Your task to perform on an android device: clear all cookies in the chrome app Image 0: 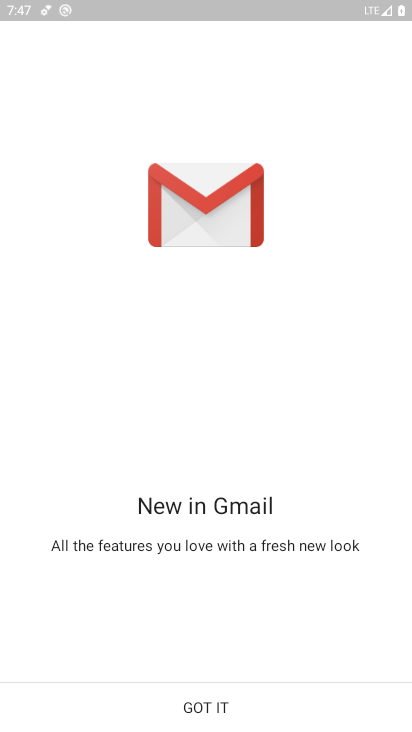
Step 0: click (214, 707)
Your task to perform on an android device: clear all cookies in the chrome app Image 1: 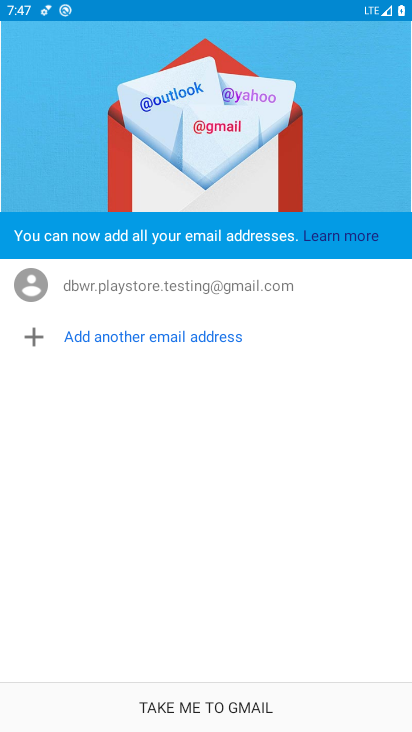
Step 1: press home button
Your task to perform on an android device: clear all cookies in the chrome app Image 2: 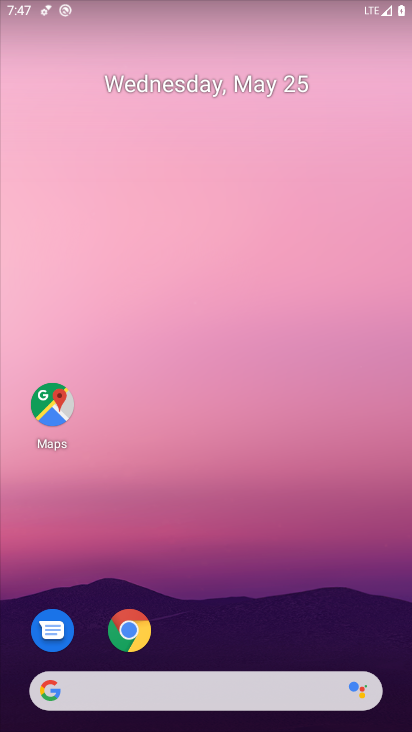
Step 2: click (135, 630)
Your task to perform on an android device: clear all cookies in the chrome app Image 3: 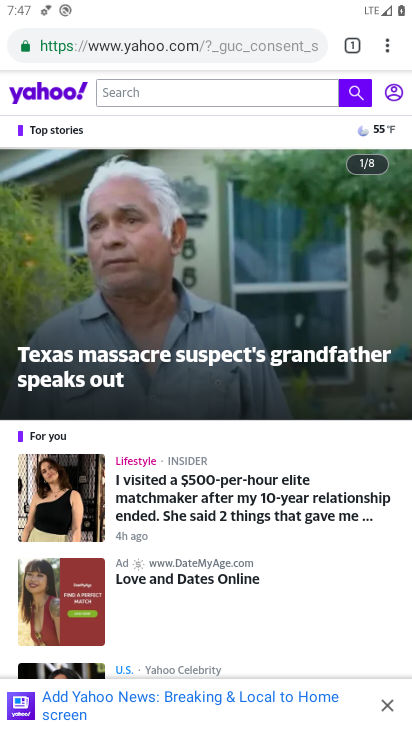
Step 3: click (389, 43)
Your task to perform on an android device: clear all cookies in the chrome app Image 4: 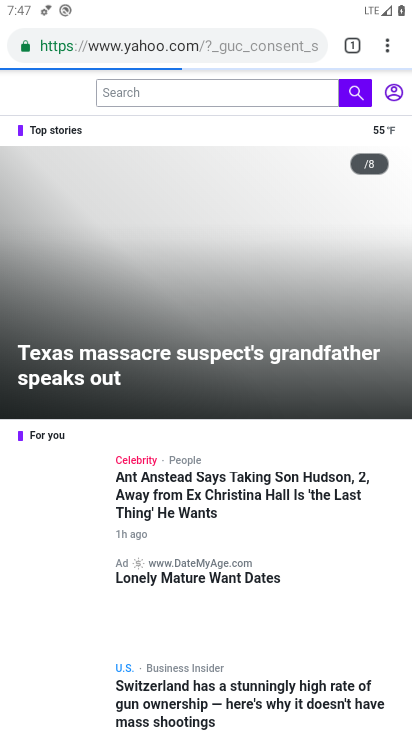
Step 4: click (350, 48)
Your task to perform on an android device: clear all cookies in the chrome app Image 5: 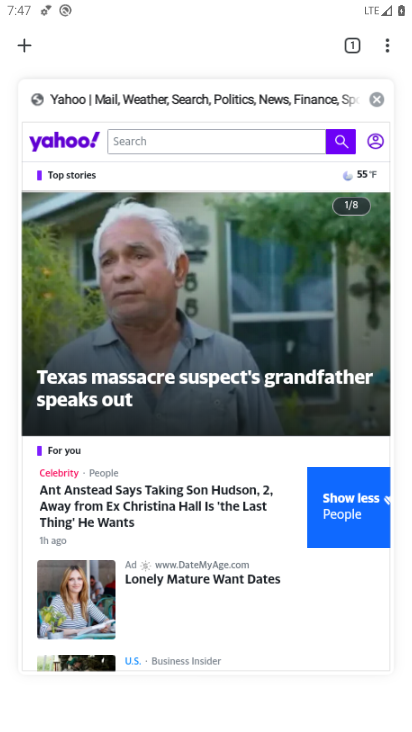
Step 5: click (372, 103)
Your task to perform on an android device: clear all cookies in the chrome app Image 6: 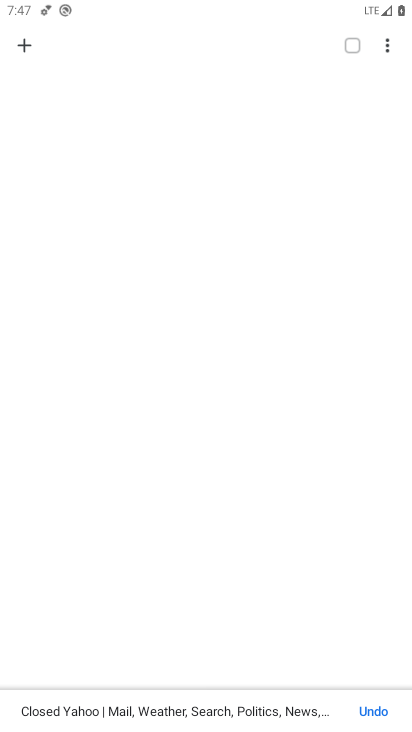
Step 6: click (388, 44)
Your task to perform on an android device: clear all cookies in the chrome app Image 7: 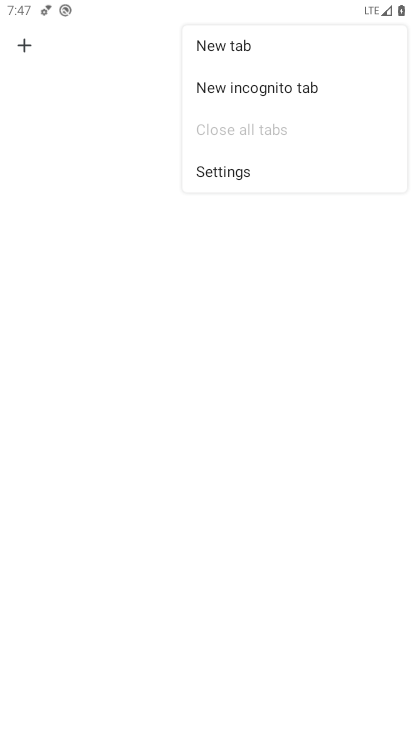
Step 7: click (239, 169)
Your task to perform on an android device: clear all cookies in the chrome app Image 8: 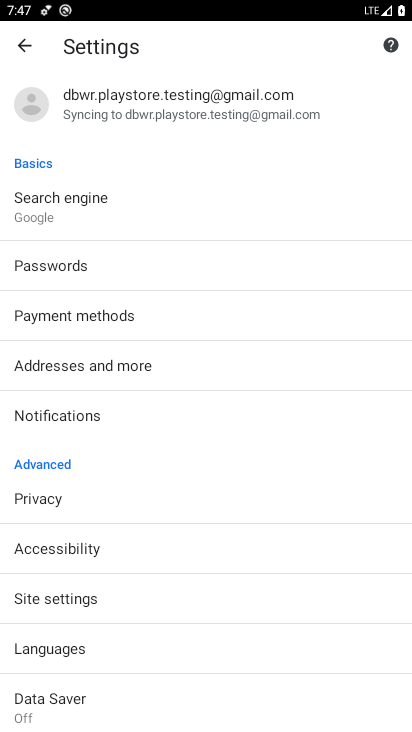
Step 8: click (41, 501)
Your task to perform on an android device: clear all cookies in the chrome app Image 9: 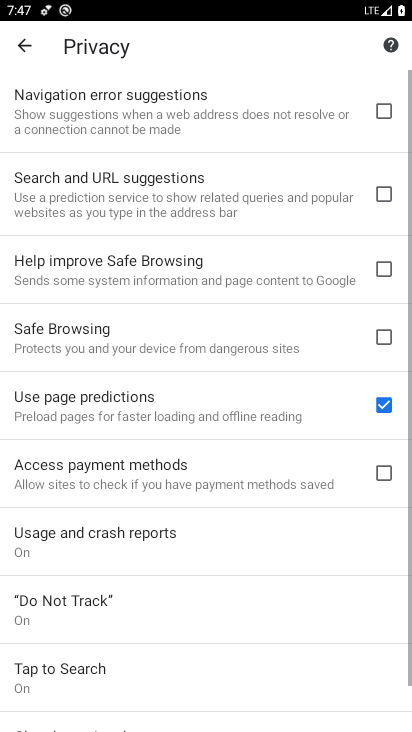
Step 9: click (83, 267)
Your task to perform on an android device: clear all cookies in the chrome app Image 10: 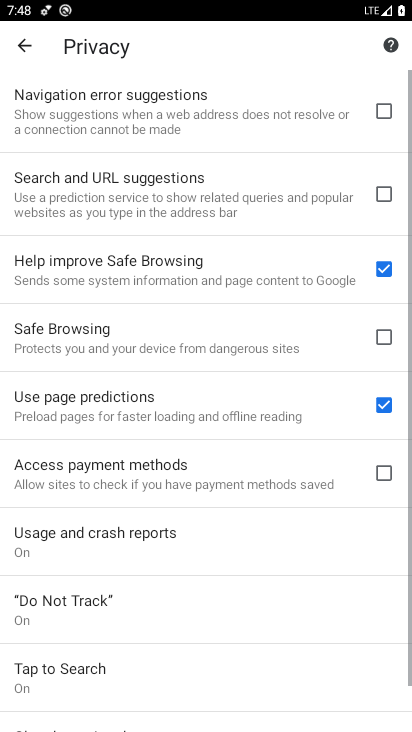
Step 10: drag from (149, 715) to (200, 322)
Your task to perform on an android device: clear all cookies in the chrome app Image 11: 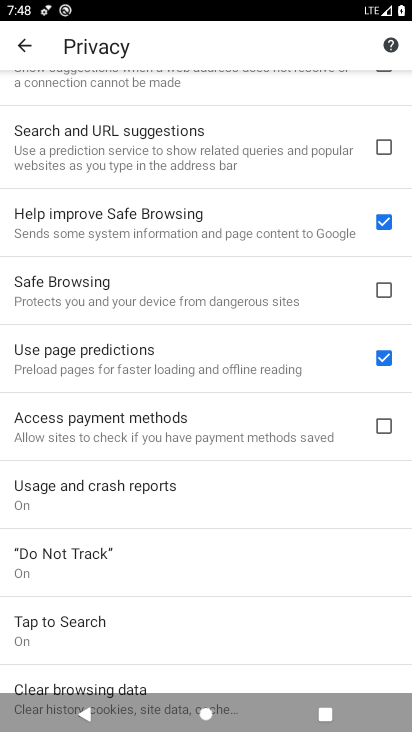
Step 11: click (142, 677)
Your task to perform on an android device: clear all cookies in the chrome app Image 12: 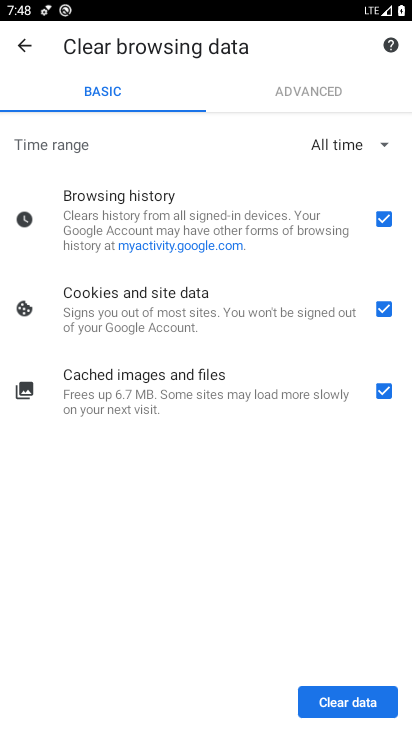
Step 12: click (387, 218)
Your task to perform on an android device: clear all cookies in the chrome app Image 13: 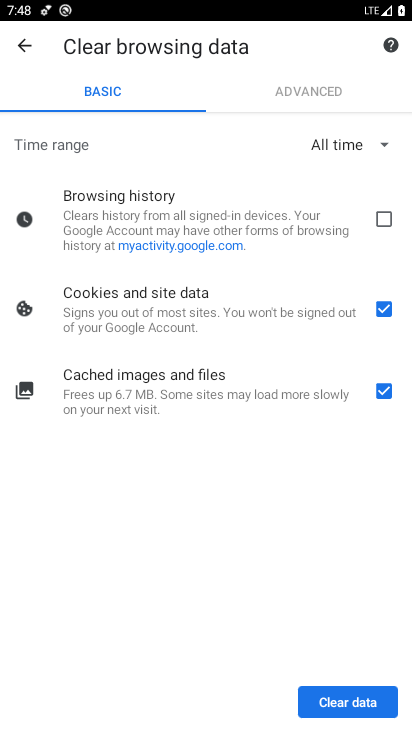
Step 13: click (390, 389)
Your task to perform on an android device: clear all cookies in the chrome app Image 14: 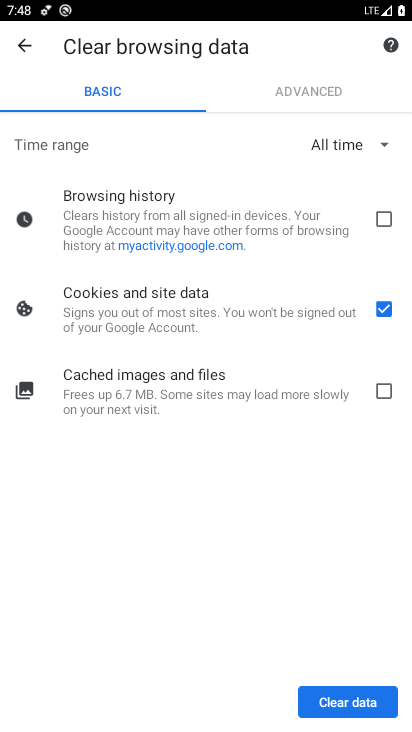
Step 14: click (372, 705)
Your task to perform on an android device: clear all cookies in the chrome app Image 15: 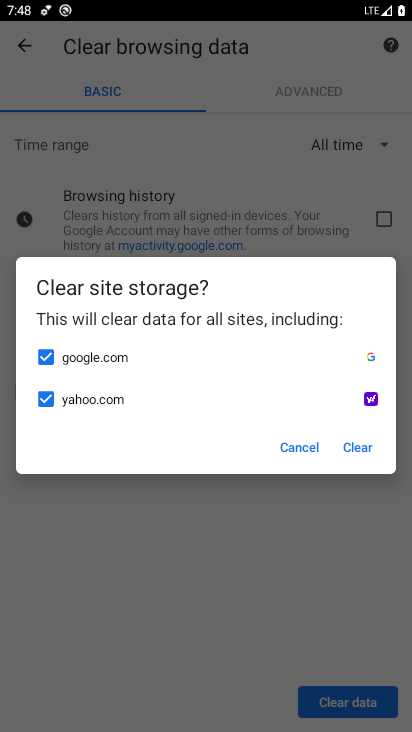
Step 15: click (345, 444)
Your task to perform on an android device: clear all cookies in the chrome app Image 16: 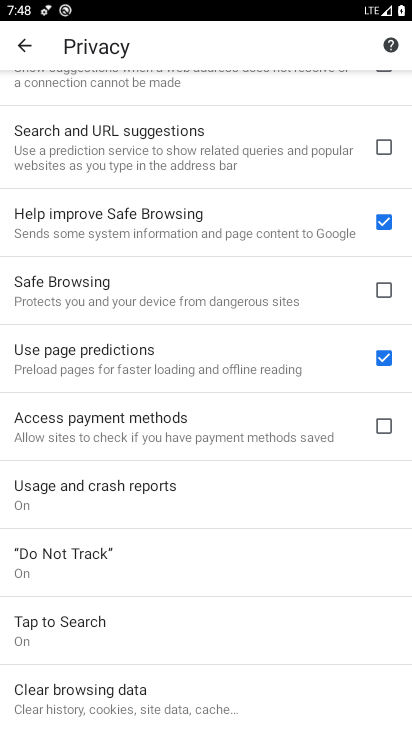
Step 16: task complete